Your task to perform on an android device: Go to ESPN.com Image 0: 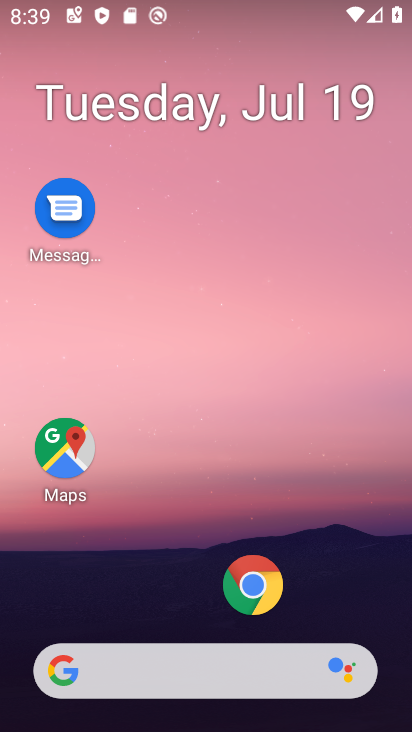
Step 0: click (239, 575)
Your task to perform on an android device: Go to ESPN.com Image 1: 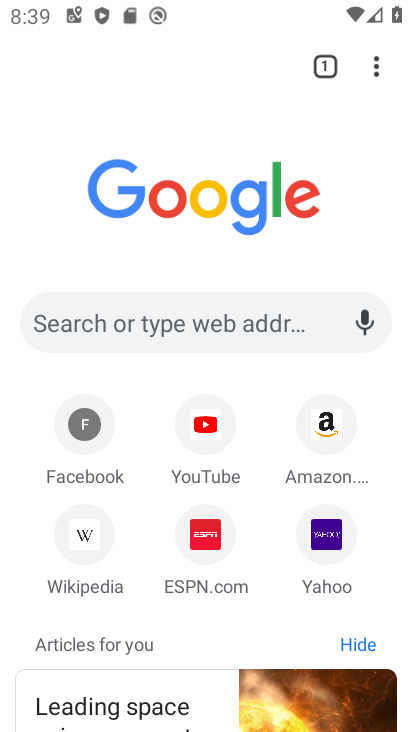
Step 1: click (204, 556)
Your task to perform on an android device: Go to ESPN.com Image 2: 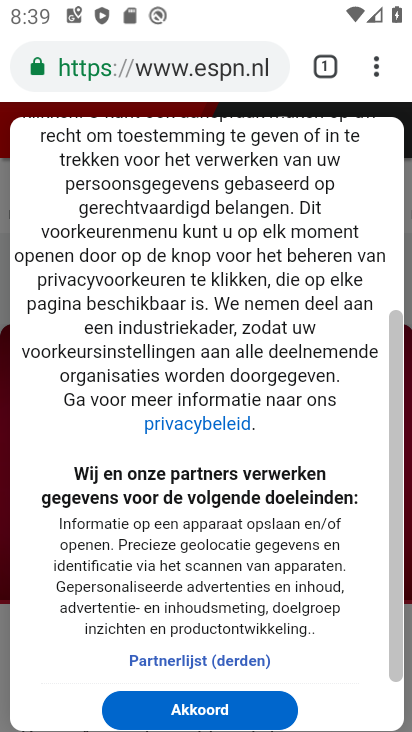
Step 2: task complete